Your task to perform on an android device: Show me popular games on the Play Store Image 0: 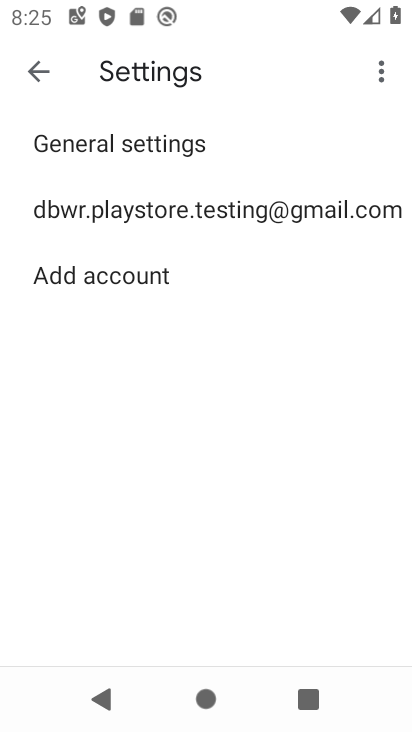
Step 0: press home button
Your task to perform on an android device: Show me popular games on the Play Store Image 1: 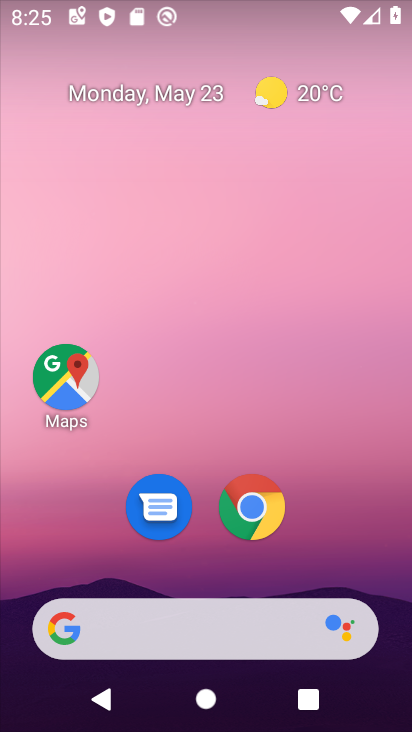
Step 1: drag from (379, 582) to (346, 7)
Your task to perform on an android device: Show me popular games on the Play Store Image 2: 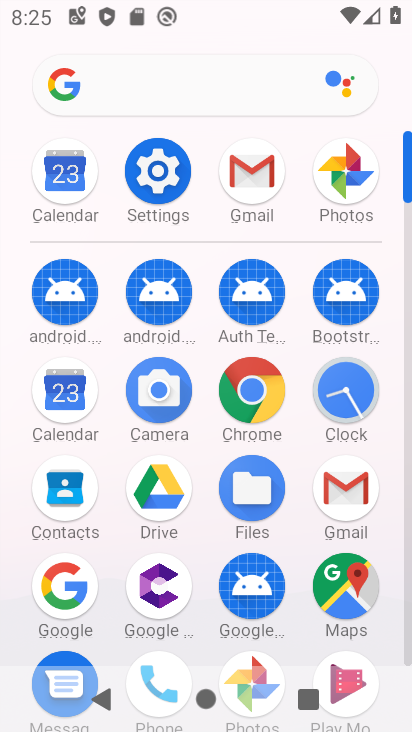
Step 2: click (406, 432)
Your task to perform on an android device: Show me popular games on the Play Store Image 3: 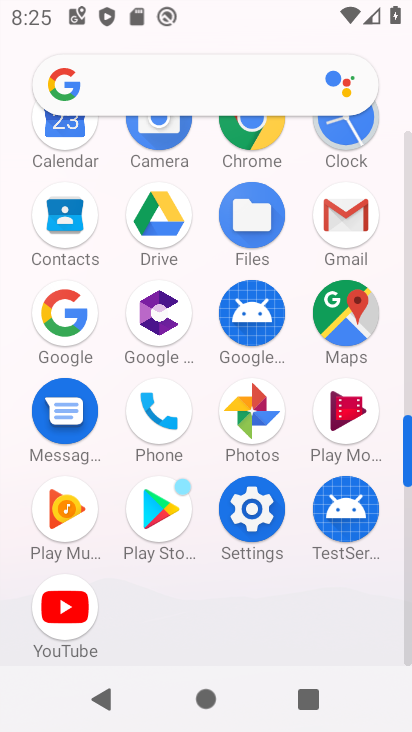
Step 3: click (167, 517)
Your task to perform on an android device: Show me popular games on the Play Store Image 4: 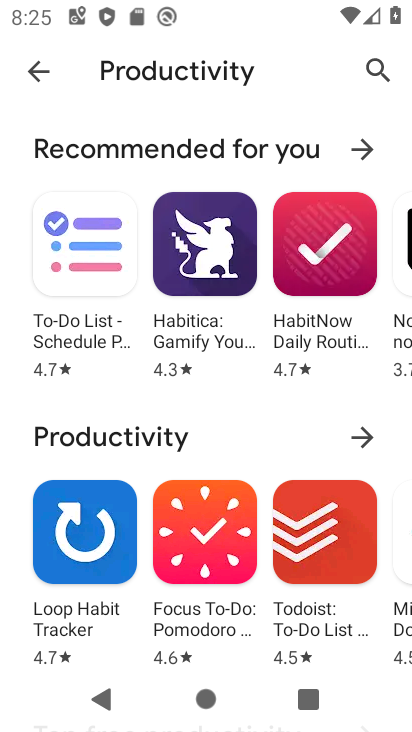
Step 4: click (38, 79)
Your task to perform on an android device: Show me popular games on the Play Store Image 5: 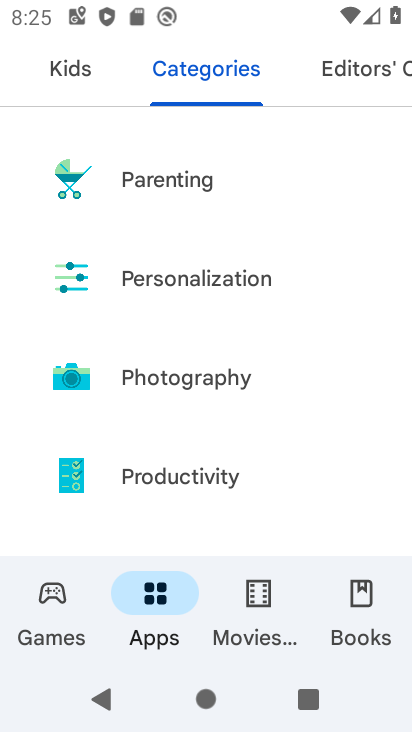
Step 5: click (48, 636)
Your task to perform on an android device: Show me popular games on the Play Store Image 6: 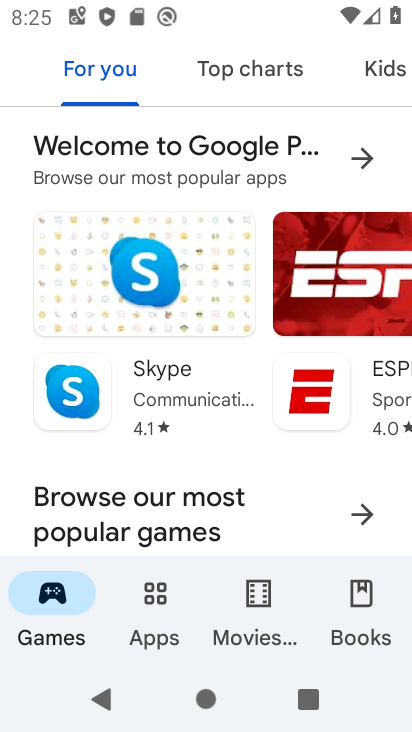
Step 6: click (242, 510)
Your task to perform on an android device: Show me popular games on the Play Store Image 7: 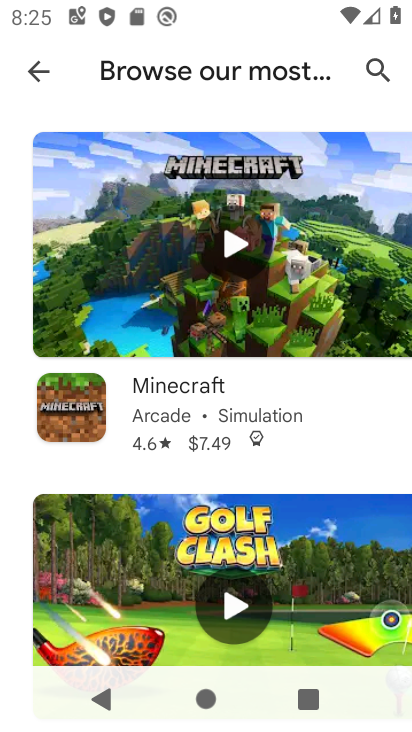
Step 7: task complete